Your task to perform on an android device: Open the phone app and click the voicemail tab. Image 0: 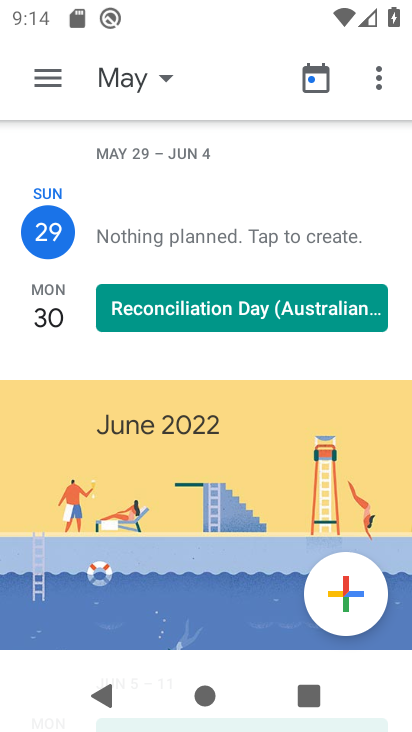
Step 0: press back button
Your task to perform on an android device: Open the phone app and click the voicemail tab. Image 1: 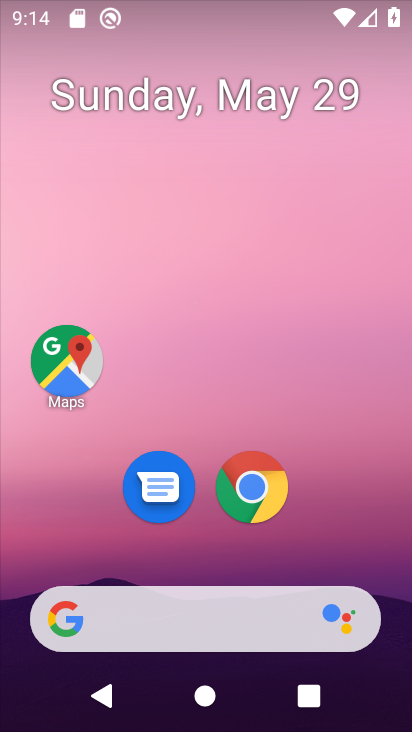
Step 1: drag from (302, 249) to (275, 134)
Your task to perform on an android device: Open the phone app and click the voicemail tab. Image 2: 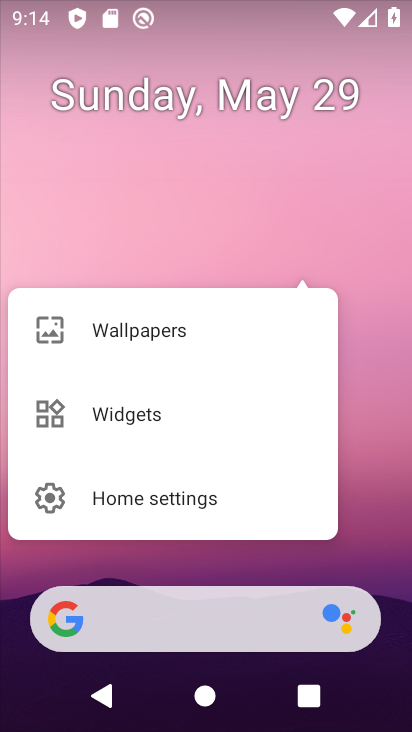
Step 2: drag from (360, 516) to (322, 52)
Your task to perform on an android device: Open the phone app and click the voicemail tab. Image 3: 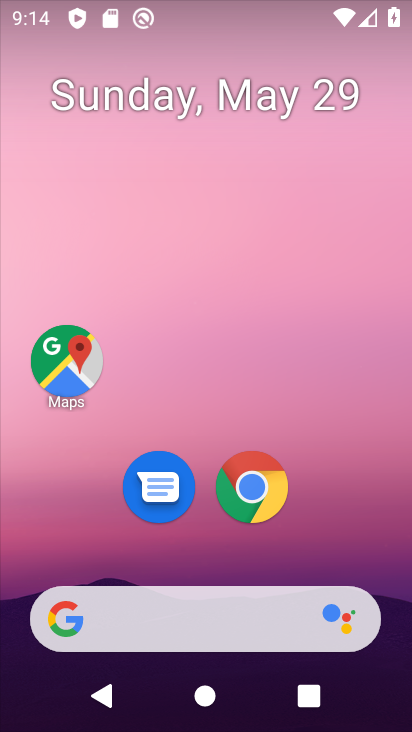
Step 3: drag from (309, 547) to (297, 57)
Your task to perform on an android device: Open the phone app and click the voicemail tab. Image 4: 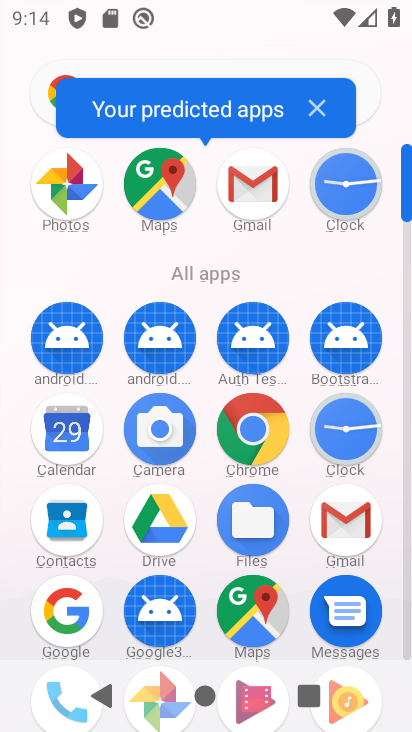
Step 4: drag from (205, 497) to (211, 203)
Your task to perform on an android device: Open the phone app and click the voicemail tab. Image 5: 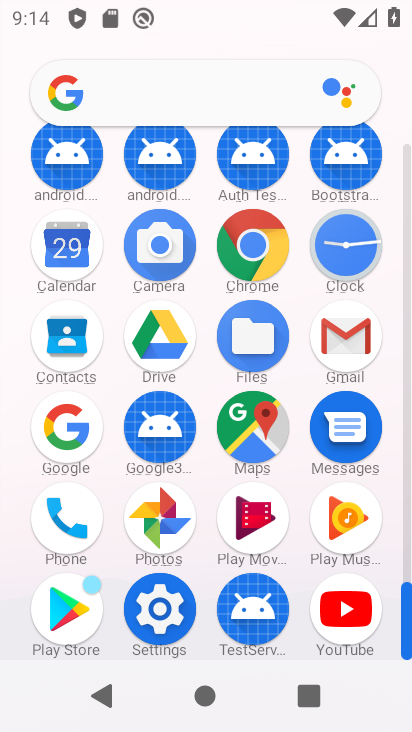
Step 5: click (63, 530)
Your task to perform on an android device: Open the phone app and click the voicemail tab. Image 6: 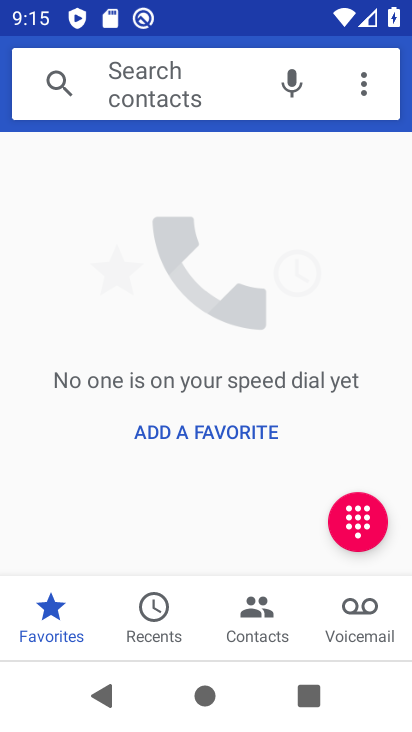
Step 6: click (365, 622)
Your task to perform on an android device: Open the phone app and click the voicemail tab. Image 7: 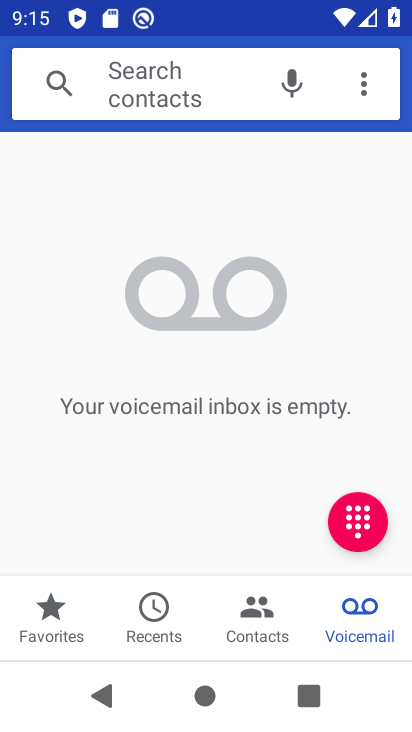
Step 7: task complete